Your task to perform on an android device: Show me recent news Image 0: 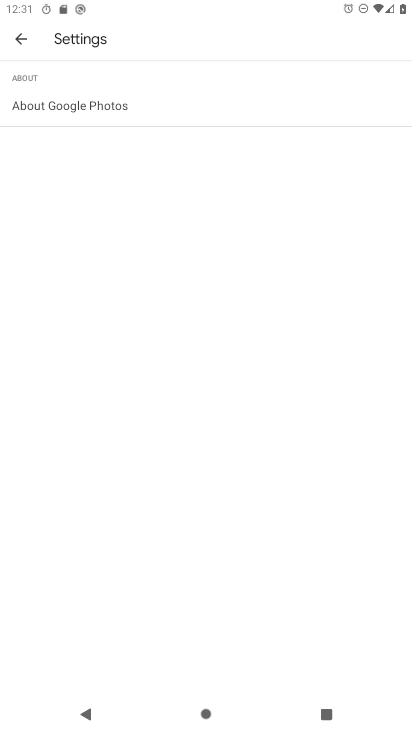
Step 0: press home button
Your task to perform on an android device: Show me recent news Image 1: 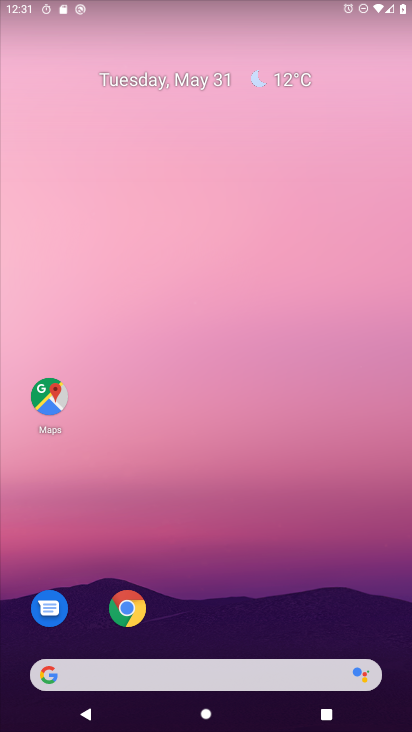
Step 1: click (102, 675)
Your task to perform on an android device: Show me recent news Image 2: 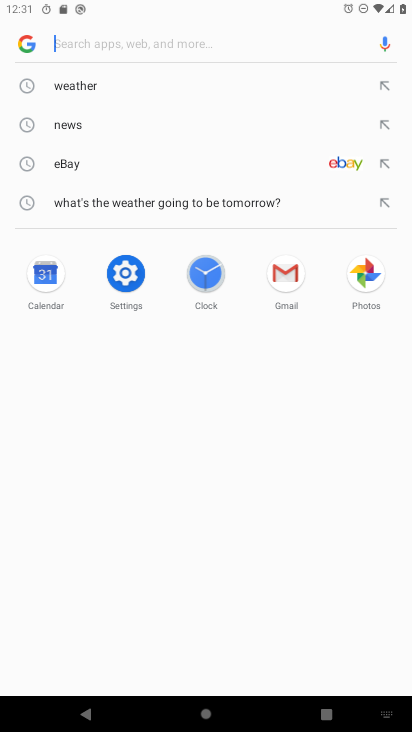
Step 2: click (85, 45)
Your task to perform on an android device: Show me recent news Image 3: 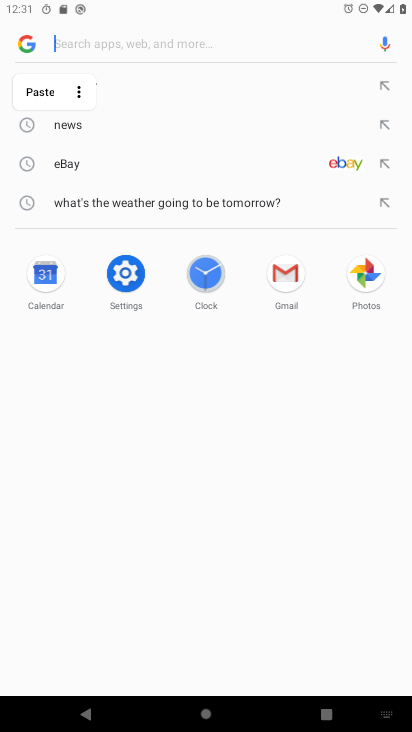
Step 3: type "recent news"
Your task to perform on an android device: Show me recent news Image 4: 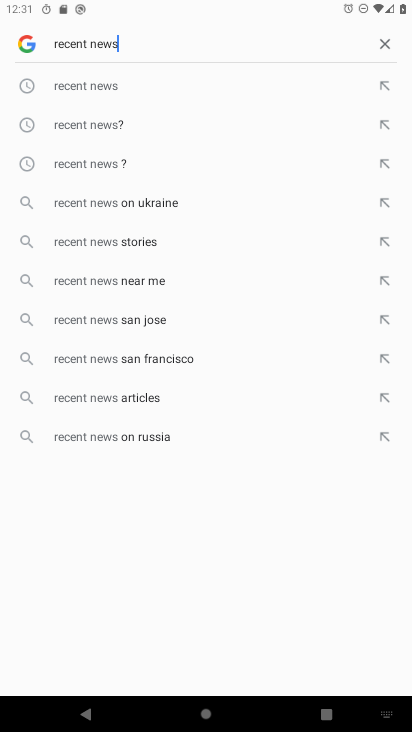
Step 4: click (76, 92)
Your task to perform on an android device: Show me recent news Image 5: 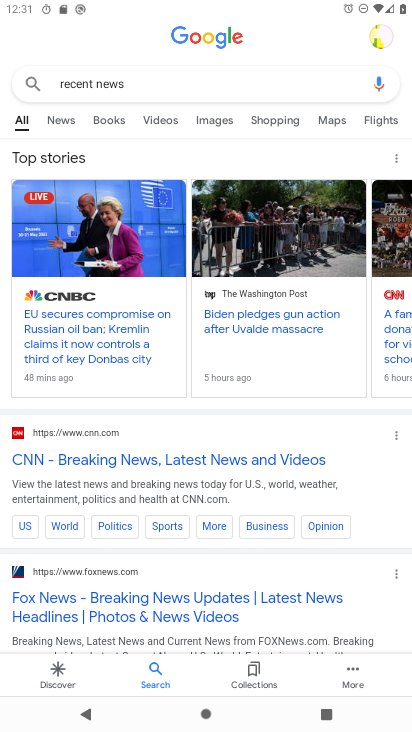
Step 5: click (94, 293)
Your task to perform on an android device: Show me recent news Image 6: 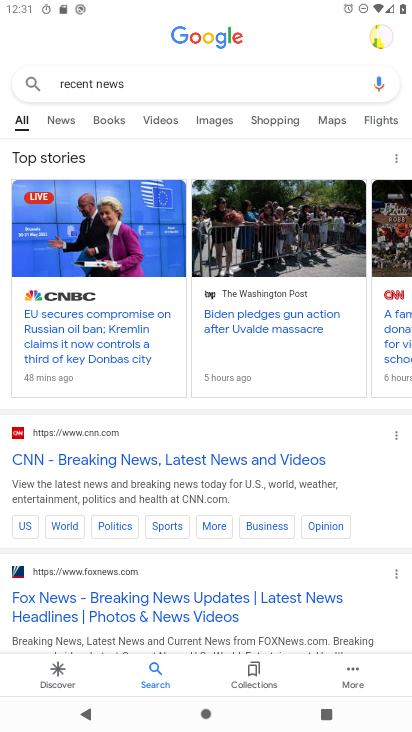
Step 6: click (93, 325)
Your task to perform on an android device: Show me recent news Image 7: 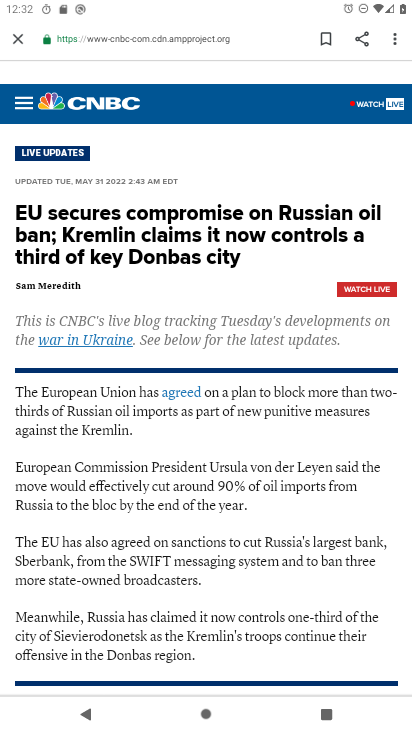
Step 7: task complete